Your task to perform on an android device: Open Yahoo.com Image 0: 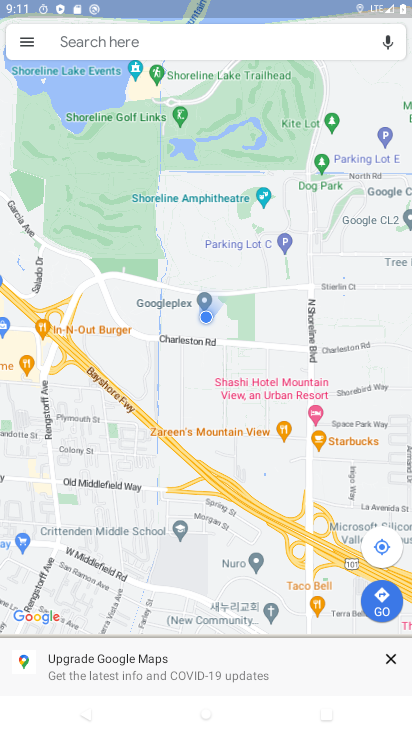
Step 0: press home button
Your task to perform on an android device: Open Yahoo.com Image 1: 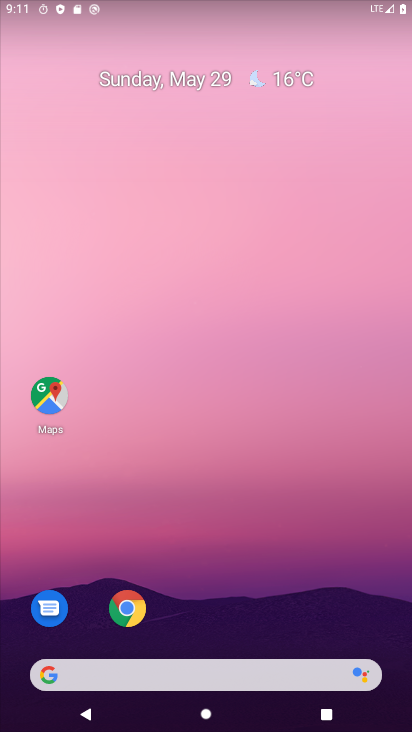
Step 1: click (134, 613)
Your task to perform on an android device: Open Yahoo.com Image 2: 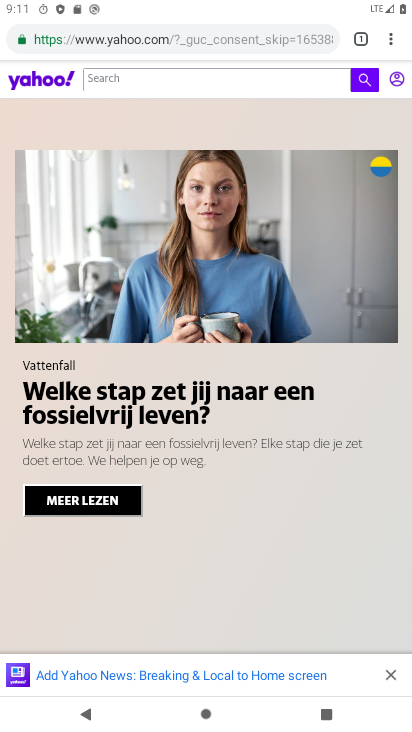
Step 2: task complete